Your task to perform on an android device: Open Amazon Image 0: 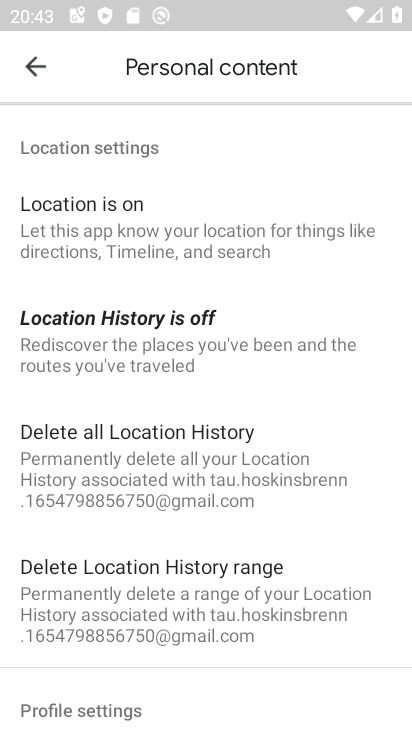
Step 0: press home button
Your task to perform on an android device: Open Amazon Image 1: 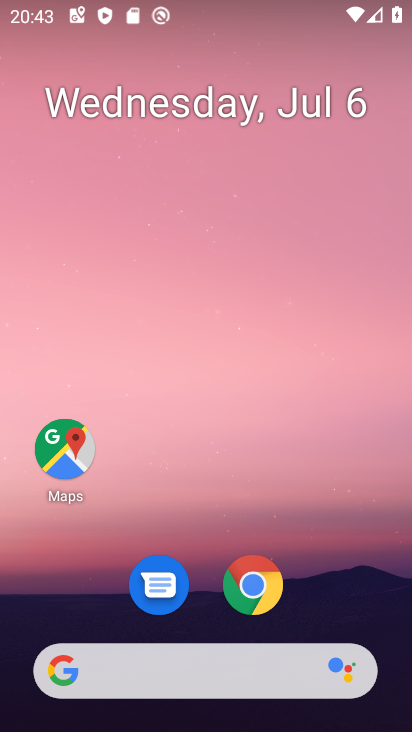
Step 1: click (254, 584)
Your task to perform on an android device: Open Amazon Image 2: 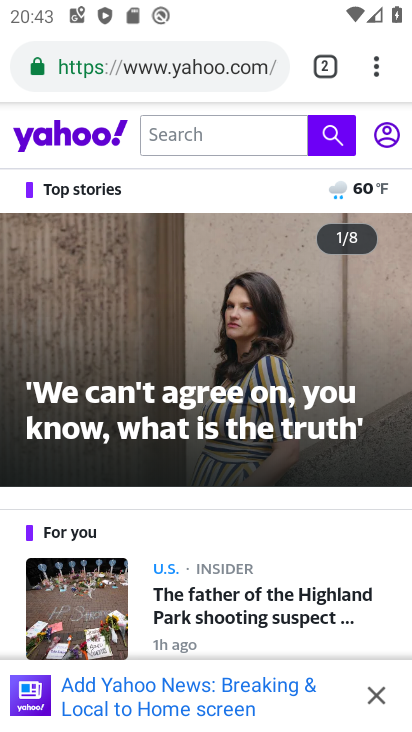
Step 2: click (379, 62)
Your task to perform on an android device: Open Amazon Image 3: 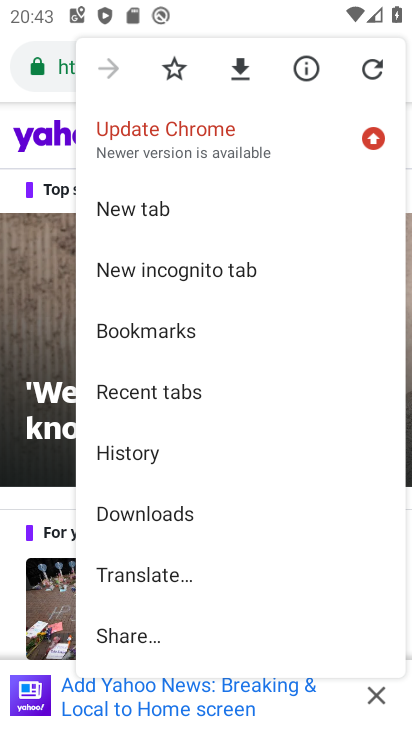
Step 3: click (166, 205)
Your task to perform on an android device: Open Amazon Image 4: 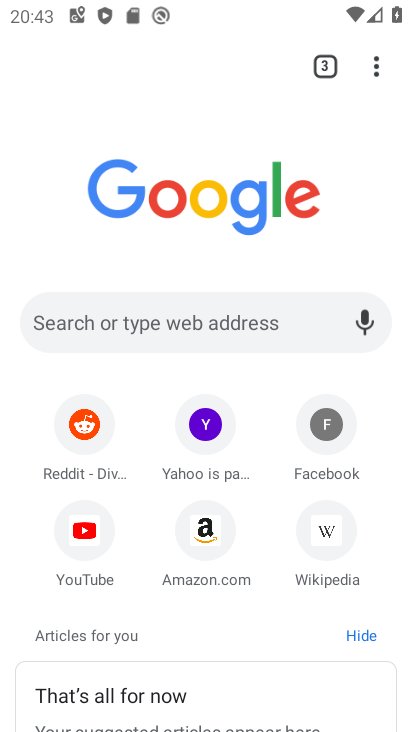
Step 4: click (205, 533)
Your task to perform on an android device: Open Amazon Image 5: 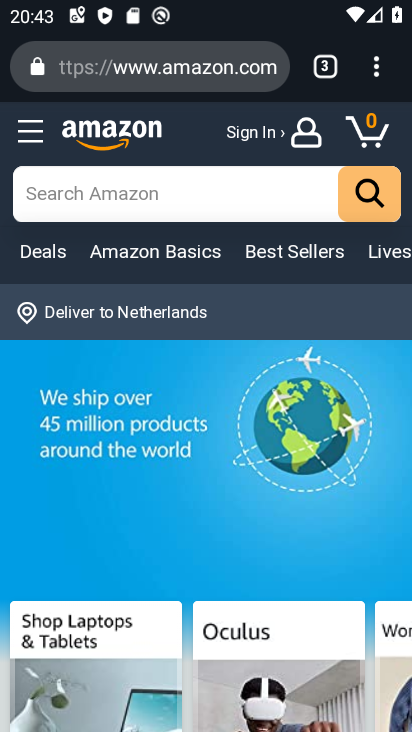
Step 5: task complete